Your task to perform on an android device: Go to sound settings Image 0: 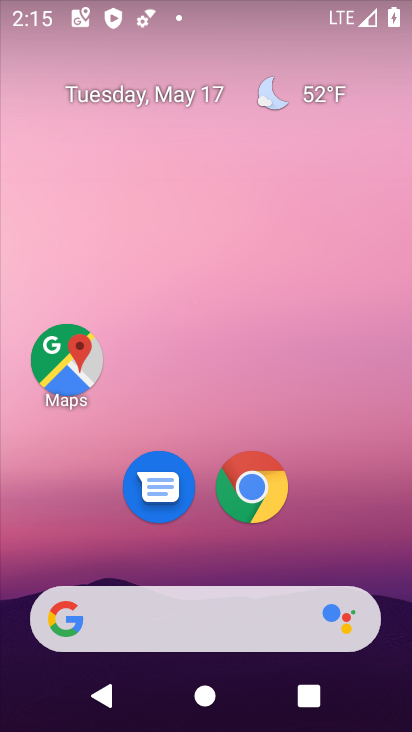
Step 0: drag from (371, 511) to (330, 288)
Your task to perform on an android device: Go to sound settings Image 1: 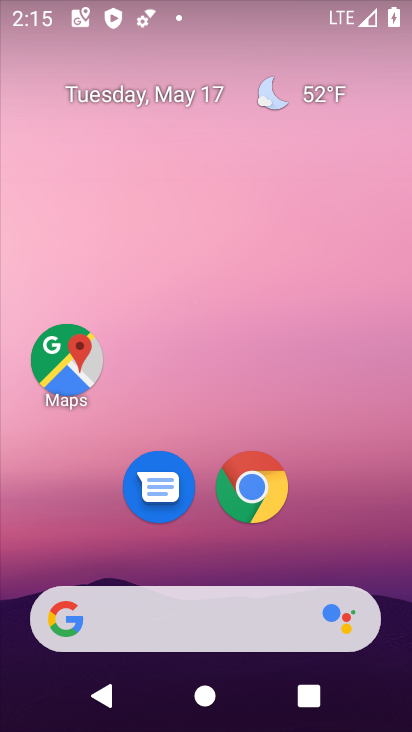
Step 1: drag from (390, 647) to (355, 217)
Your task to perform on an android device: Go to sound settings Image 2: 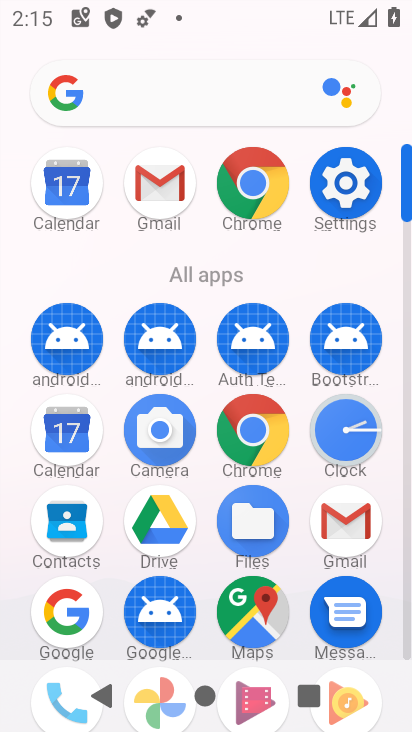
Step 2: click (347, 194)
Your task to perform on an android device: Go to sound settings Image 3: 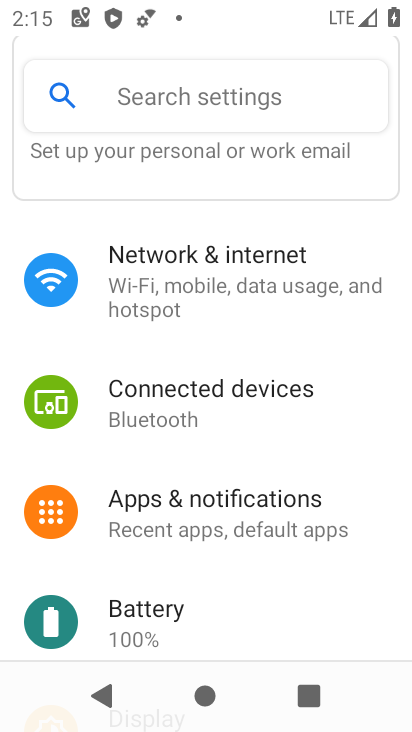
Step 3: drag from (336, 612) to (405, 253)
Your task to perform on an android device: Go to sound settings Image 4: 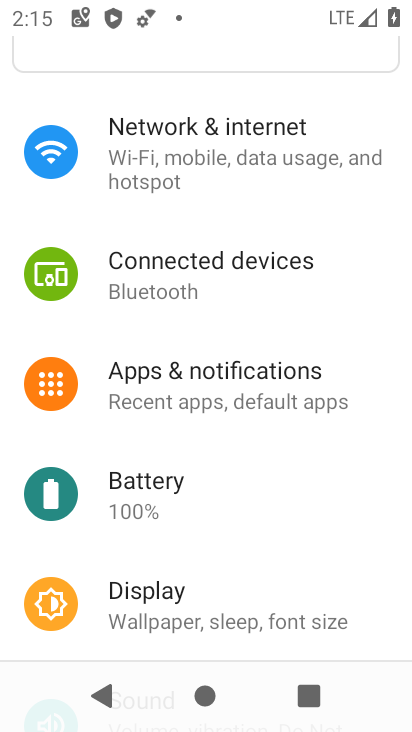
Step 4: drag from (322, 612) to (317, 355)
Your task to perform on an android device: Go to sound settings Image 5: 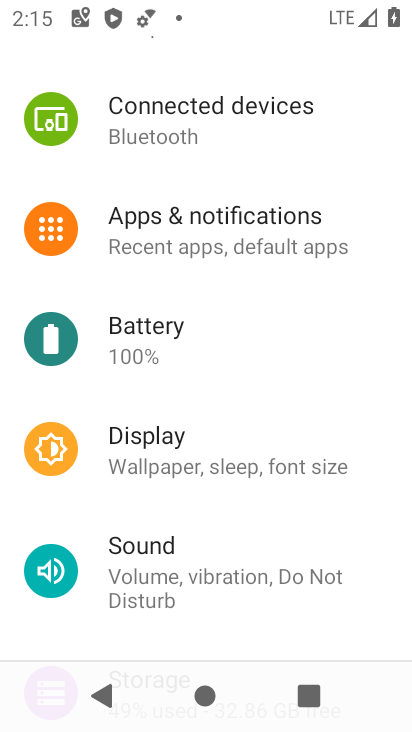
Step 5: click (153, 544)
Your task to perform on an android device: Go to sound settings Image 6: 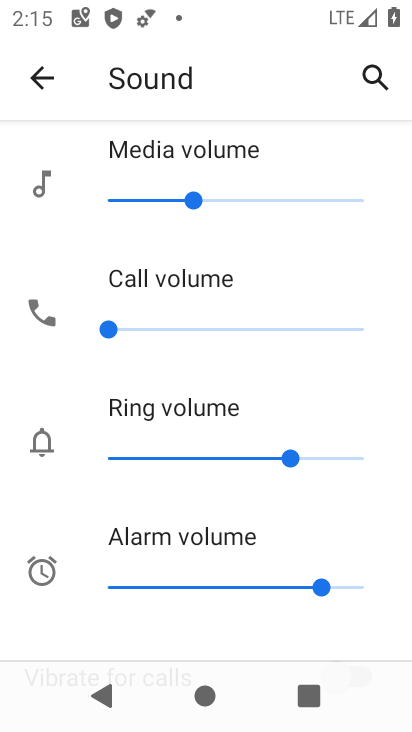
Step 6: task complete